Your task to perform on an android device: toggle improve location accuracy Image 0: 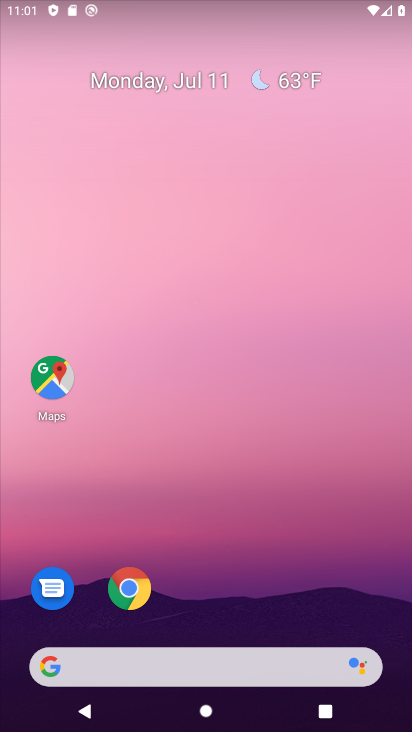
Step 0: drag from (245, 725) to (240, 140)
Your task to perform on an android device: toggle improve location accuracy Image 1: 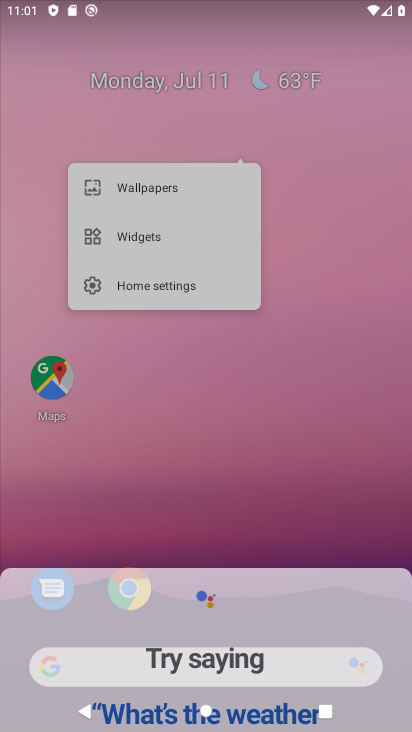
Step 1: click (298, 311)
Your task to perform on an android device: toggle improve location accuracy Image 2: 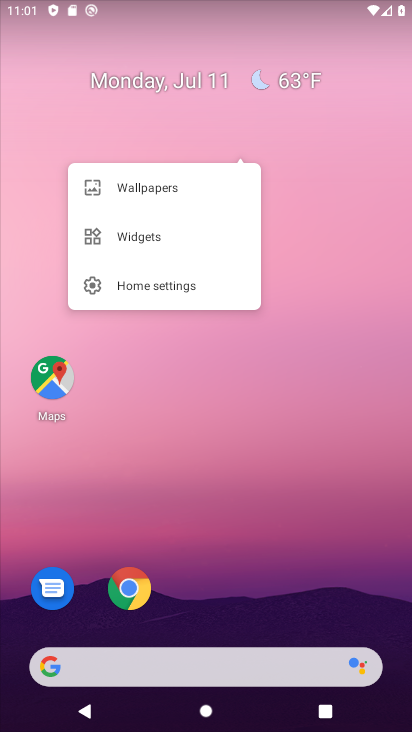
Step 2: drag from (240, 702) to (206, 185)
Your task to perform on an android device: toggle improve location accuracy Image 3: 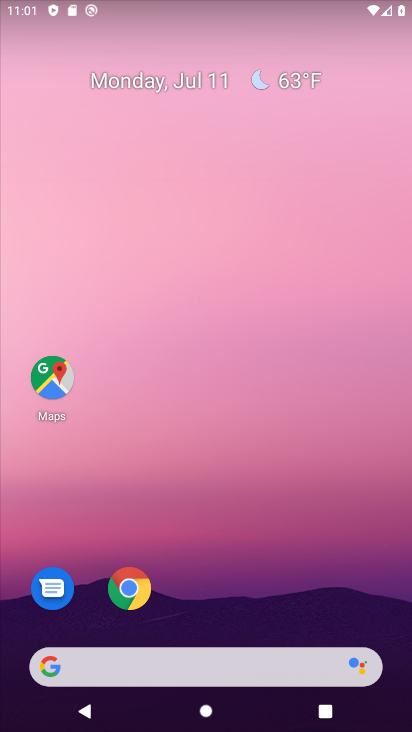
Step 3: click (245, 729)
Your task to perform on an android device: toggle improve location accuracy Image 4: 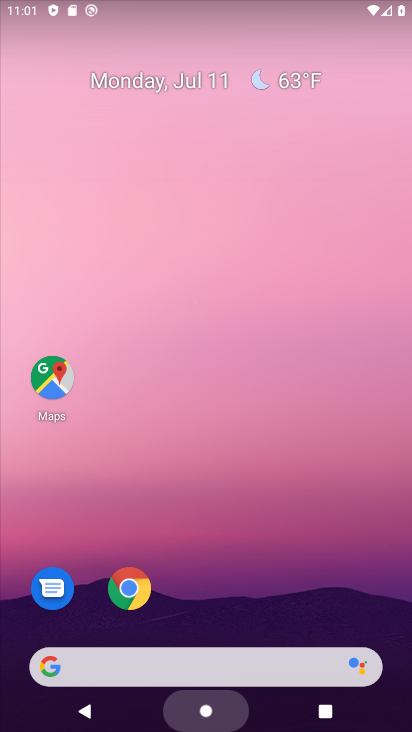
Step 4: drag from (246, 331) to (243, 120)
Your task to perform on an android device: toggle improve location accuracy Image 5: 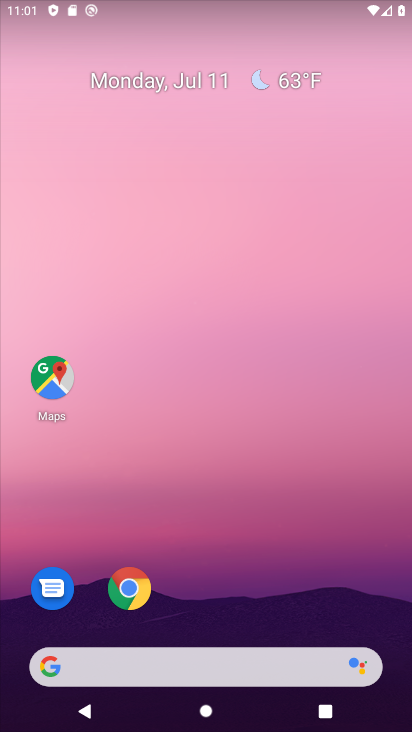
Step 5: click (254, 727)
Your task to perform on an android device: toggle improve location accuracy Image 6: 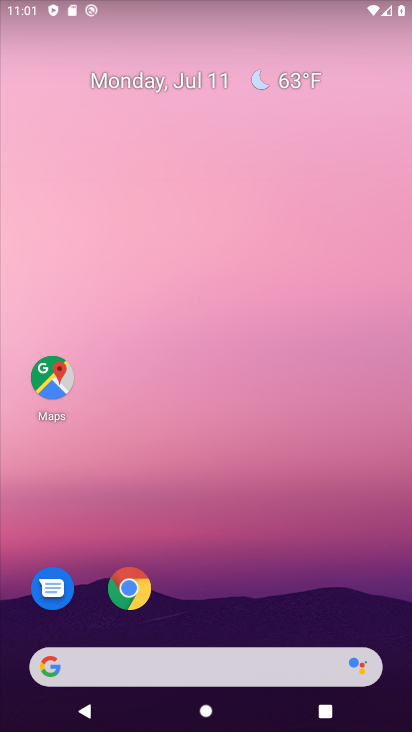
Step 6: drag from (244, 463) to (235, 115)
Your task to perform on an android device: toggle improve location accuracy Image 7: 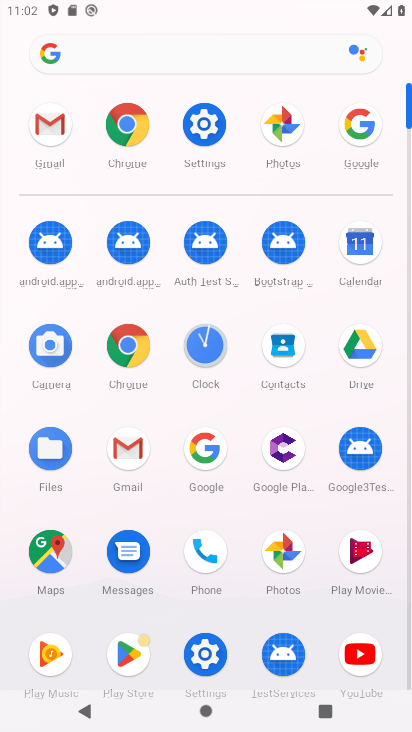
Step 7: click (207, 118)
Your task to perform on an android device: toggle improve location accuracy Image 8: 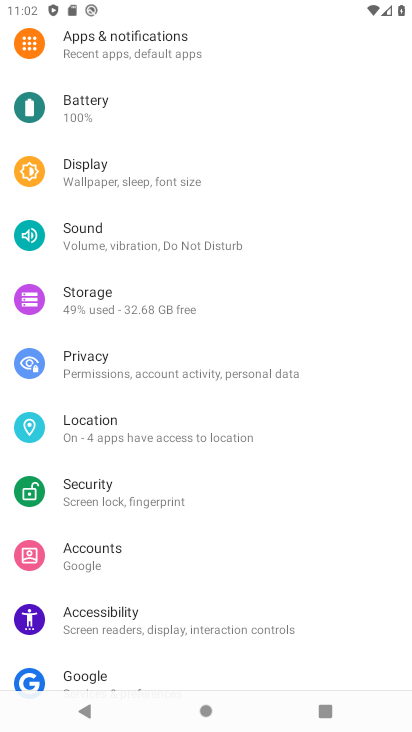
Step 8: click (94, 432)
Your task to perform on an android device: toggle improve location accuracy Image 9: 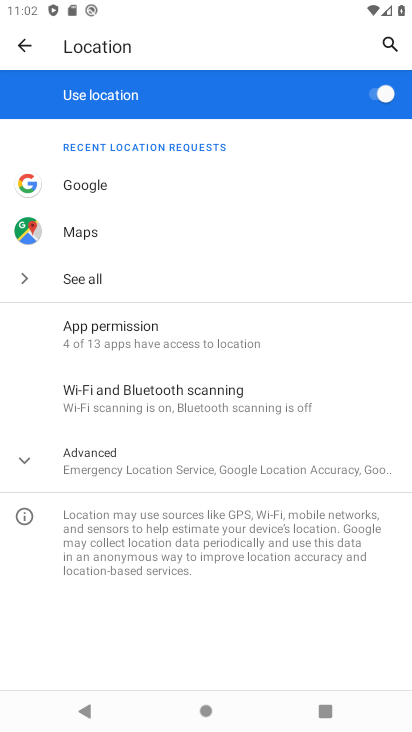
Step 9: click (90, 470)
Your task to perform on an android device: toggle improve location accuracy Image 10: 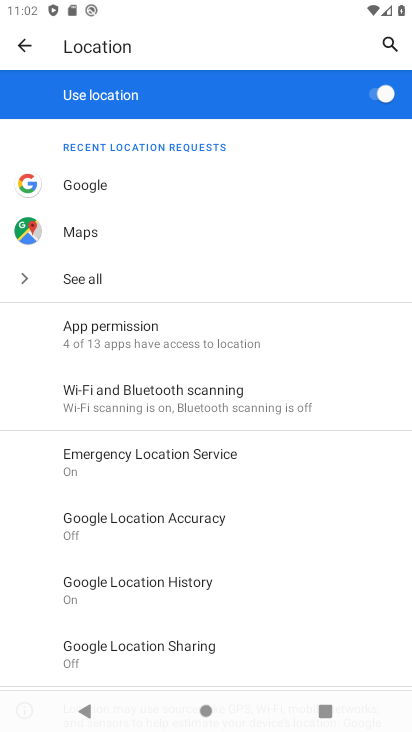
Step 10: click (92, 516)
Your task to perform on an android device: toggle improve location accuracy Image 11: 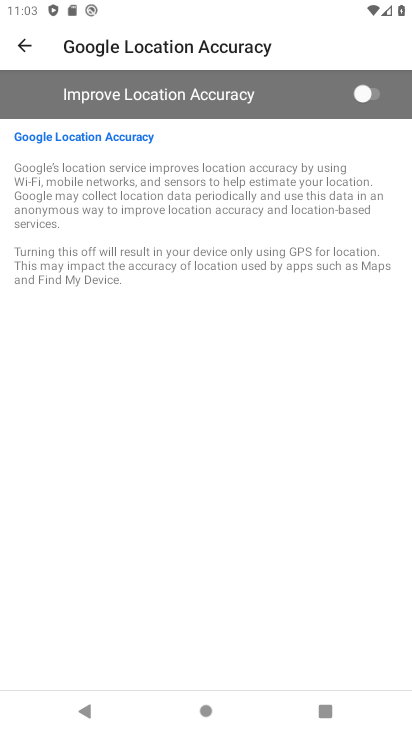
Step 11: task complete